Your task to perform on an android device: open app "Flipkart Online Shopping App" Image 0: 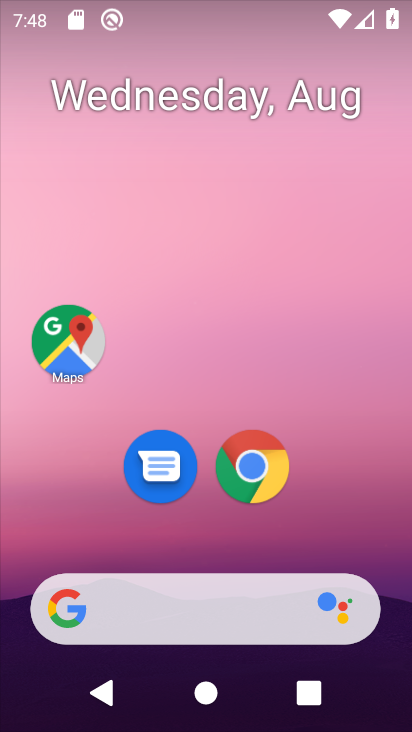
Step 0: drag from (138, 602) to (112, 100)
Your task to perform on an android device: open app "Flipkart Online Shopping App" Image 1: 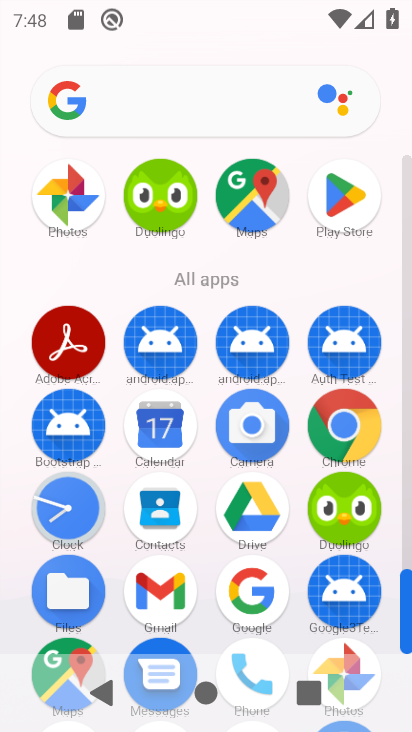
Step 1: click (355, 193)
Your task to perform on an android device: open app "Flipkart Online Shopping App" Image 2: 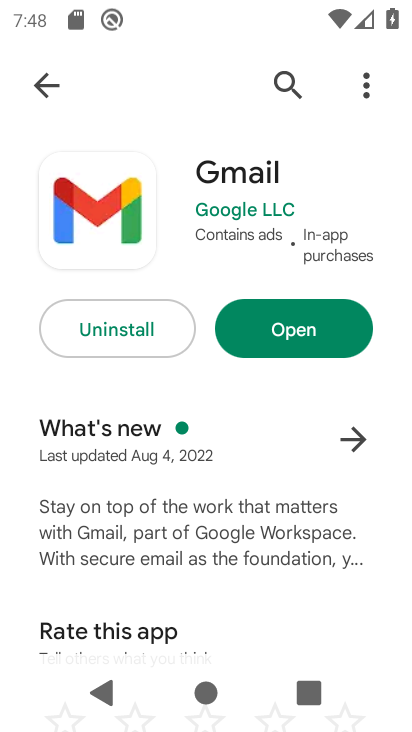
Step 2: press back button
Your task to perform on an android device: open app "Flipkart Online Shopping App" Image 3: 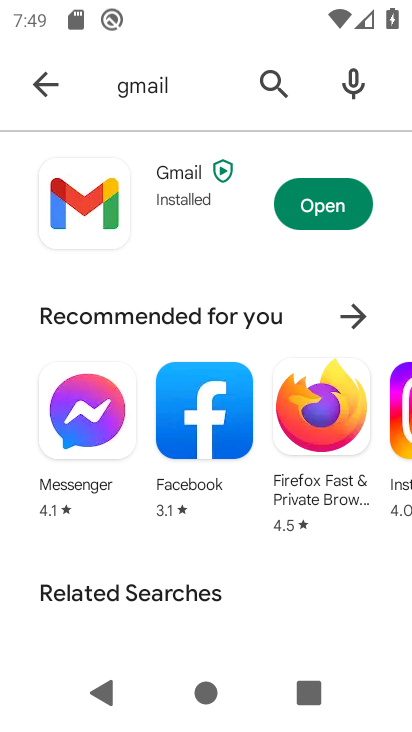
Step 3: press back button
Your task to perform on an android device: open app "Flipkart Online Shopping App" Image 4: 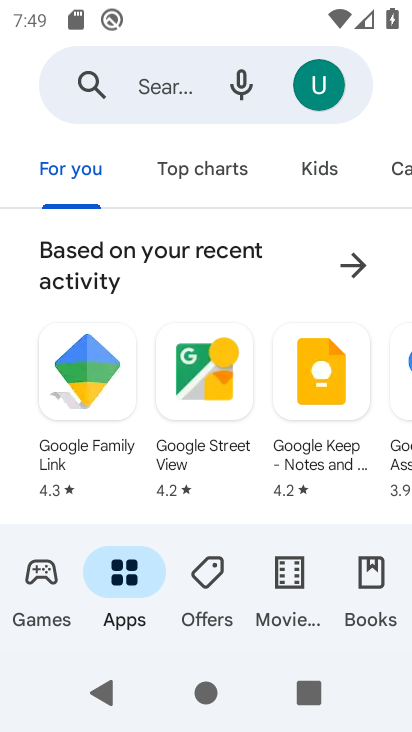
Step 4: click (191, 93)
Your task to perform on an android device: open app "Flipkart Online Shopping App" Image 5: 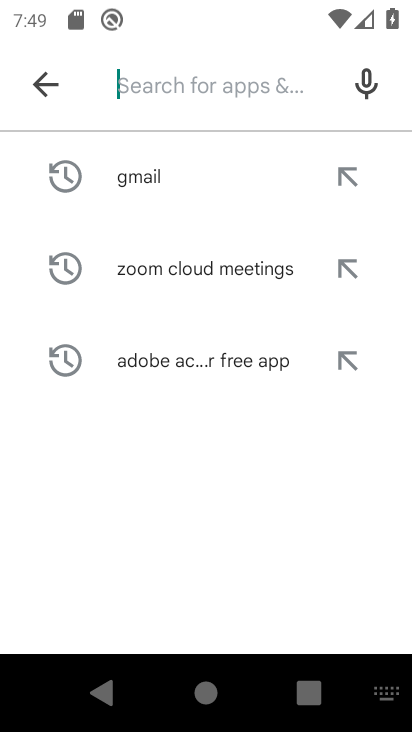
Step 5: type "Flipkart Online Shopping App"
Your task to perform on an android device: open app "Flipkart Online Shopping App" Image 6: 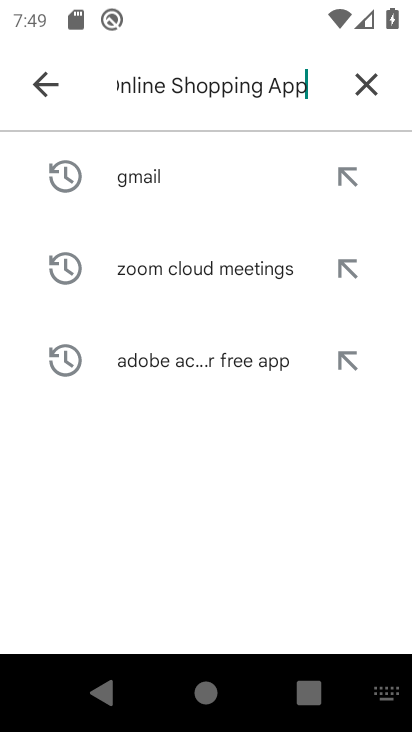
Step 6: type ""
Your task to perform on an android device: open app "Flipkart Online Shopping App" Image 7: 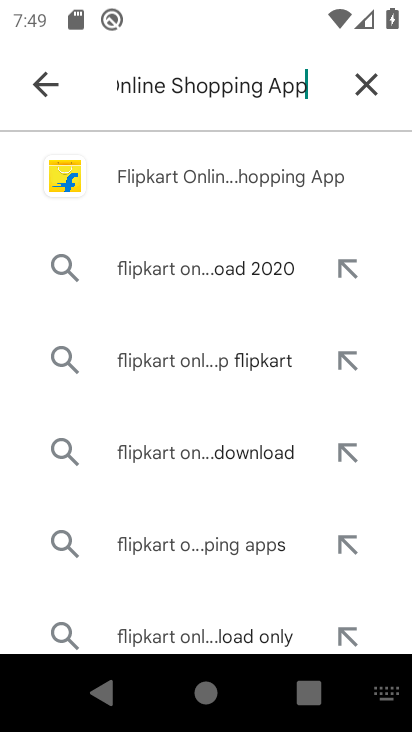
Step 7: click (278, 183)
Your task to perform on an android device: open app "Flipkart Online Shopping App" Image 8: 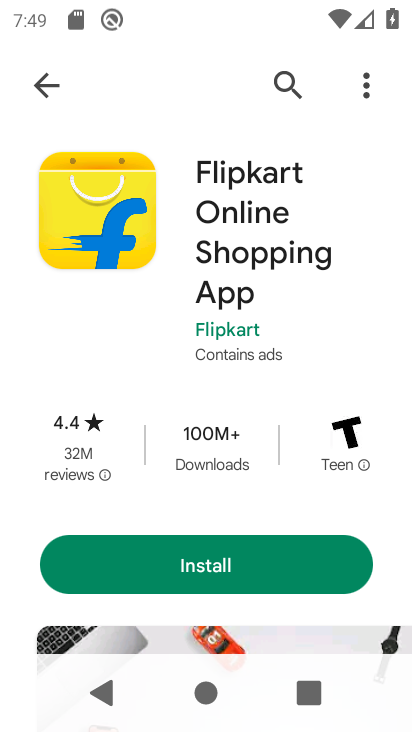
Step 8: task complete